Your task to perform on an android device: Do I have any events this weekend? Image 0: 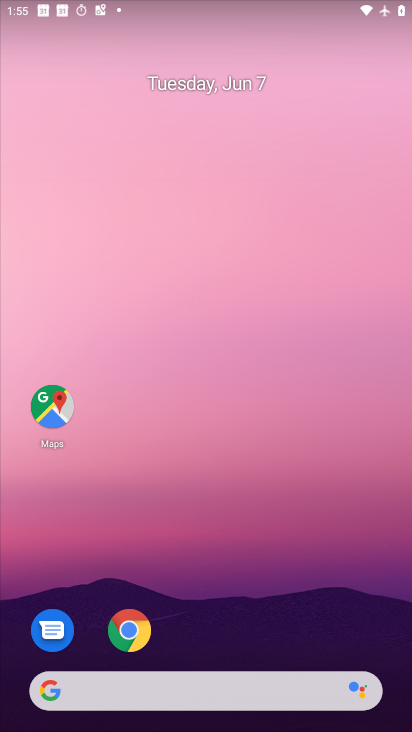
Step 0: drag from (368, 617) to (319, 108)
Your task to perform on an android device: Do I have any events this weekend? Image 1: 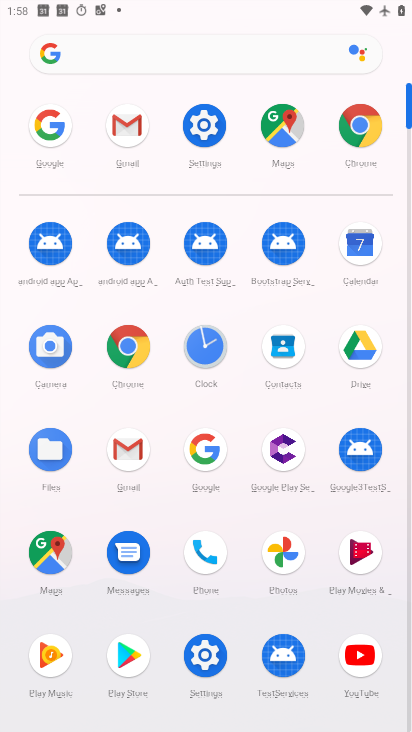
Step 1: click (370, 256)
Your task to perform on an android device: Do I have any events this weekend? Image 2: 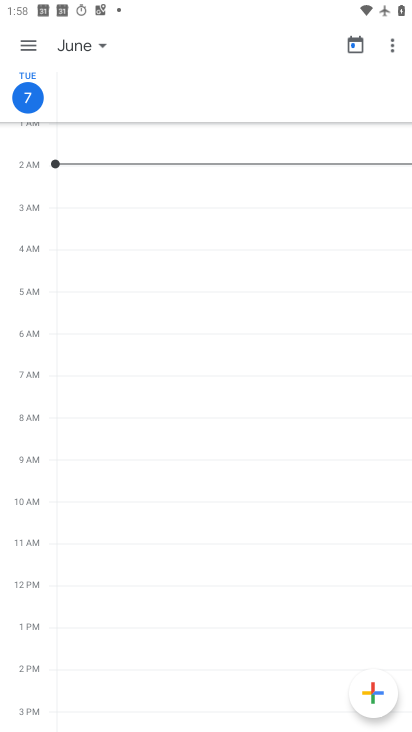
Step 2: task complete